Your task to perform on an android device: Toggle the flashlight Image 0: 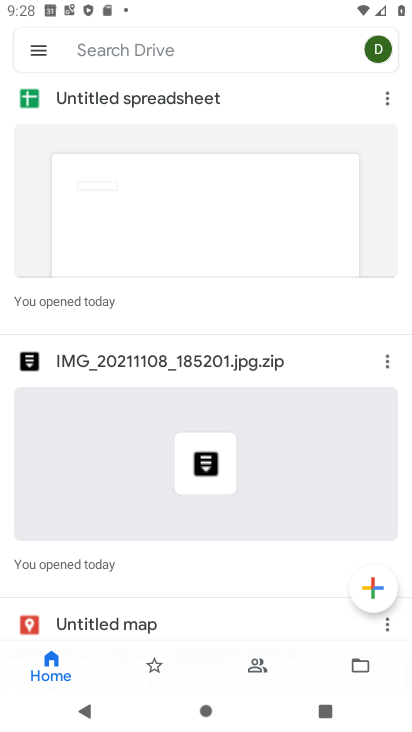
Step 0: press home button
Your task to perform on an android device: Toggle the flashlight Image 1: 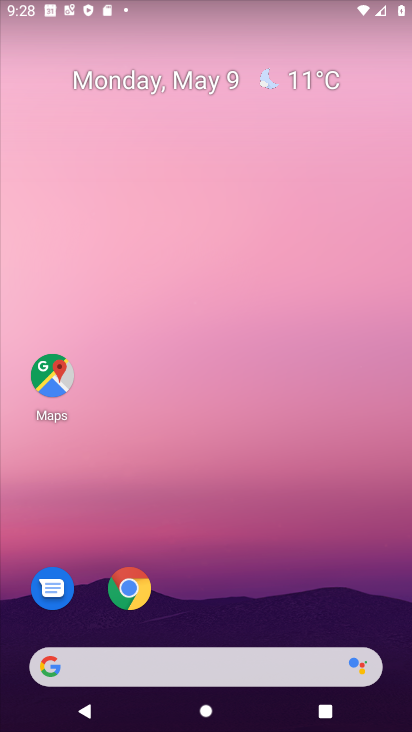
Step 1: task complete